Your task to perform on an android device: Search for Mexican restaurants on Maps Image 0: 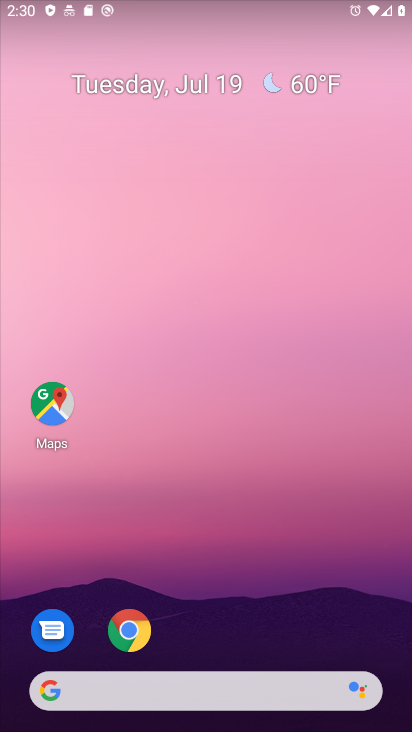
Step 0: drag from (275, 527) to (203, 96)
Your task to perform on an android device: Search for Mexican restaurants on Maps Image 1: 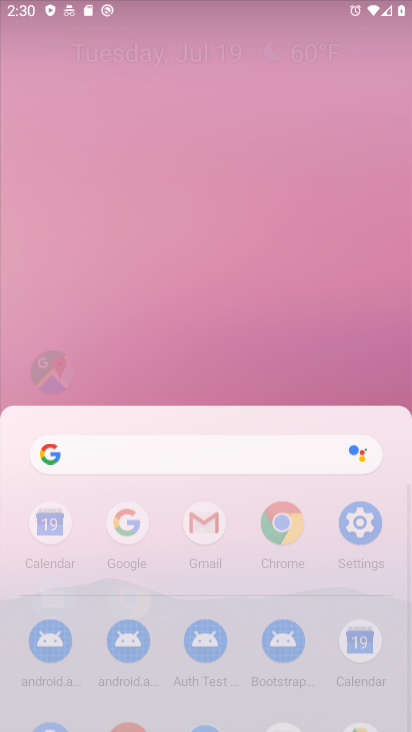
Step 1: drag from (239, 536) to (155, 100)
Your task to perform on an android device: Search for Mexican restaurants on Maps Image 2: 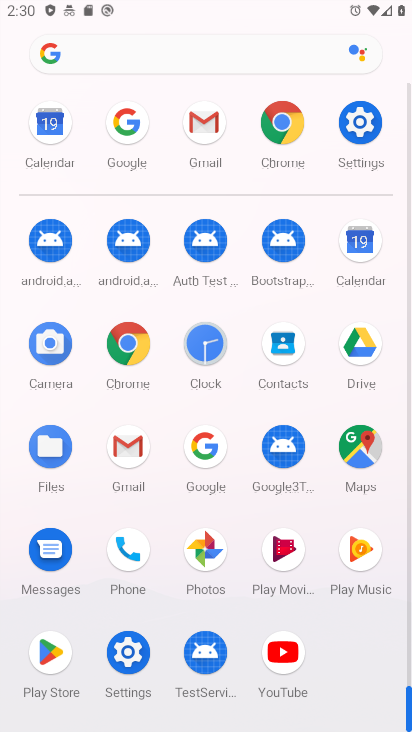
Step 2: drag from (211, 473) to (142, 139)
Your task to perform on an android device: Search for Mexican restaurants on Maps Image 3: 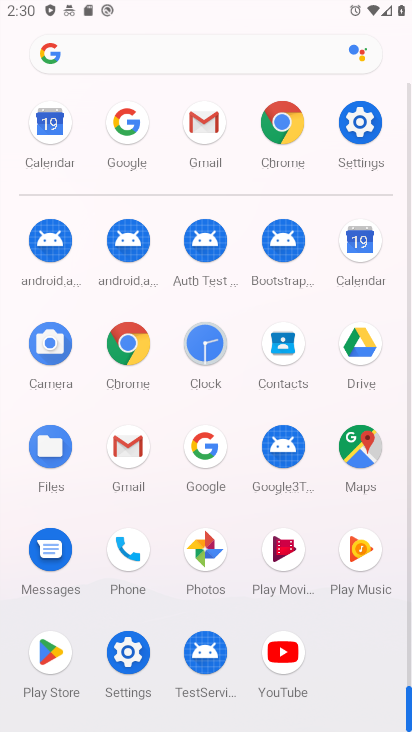
Step 3: click (361, 457)
Your task to perform on an android device: Search for Mexican restaurants on Maps Image 4: 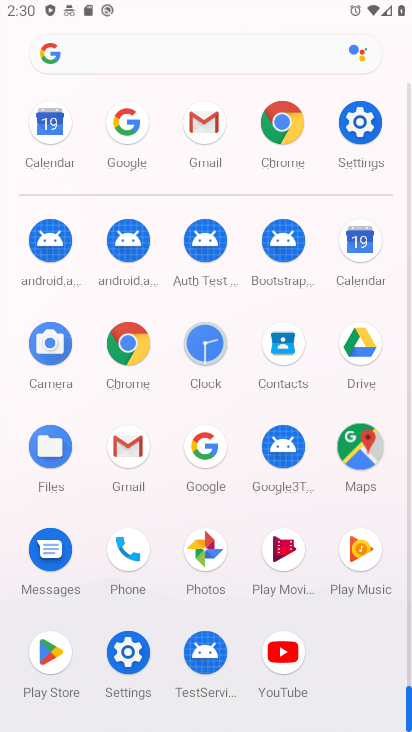
Step 4: click (362, 457)
Your task to perform on an android device: Search for Mexican restaurants on Maps Image 5: 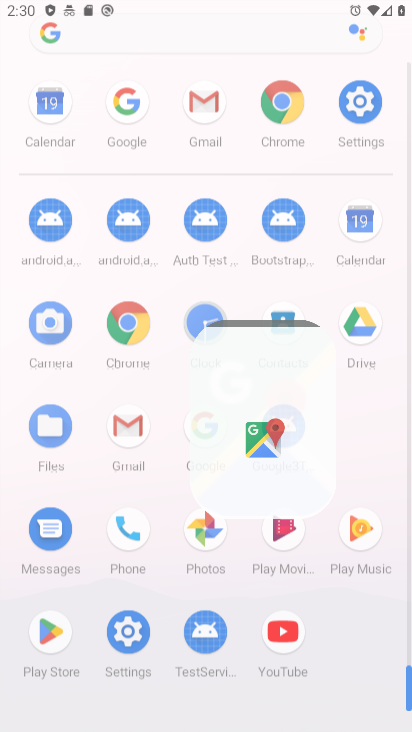
Step 5: click (362, 457)
Your task to perform on an android device: Search for Mexican restaurants on Maps Image 6: 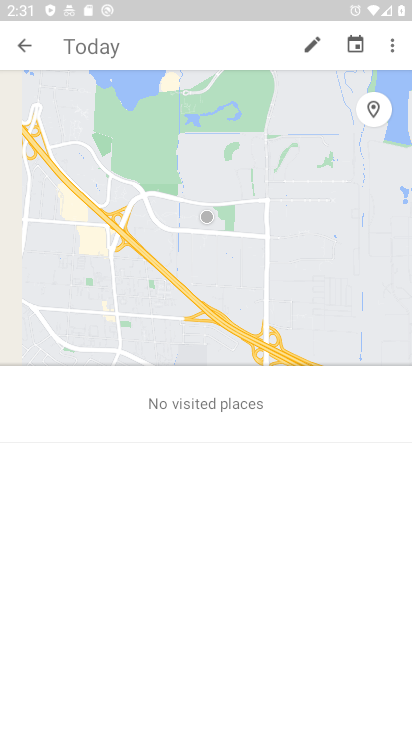
Step 6: click (114, 47)
Your task to perform on an android device: Search for Mexican restaurants on Maps Image 7: 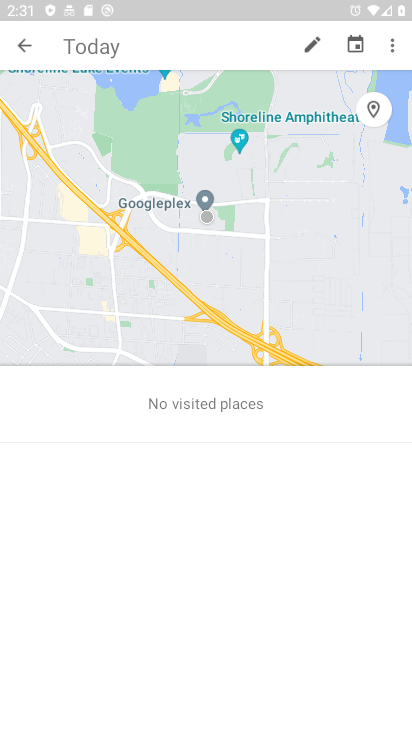
Step 7: click (120, 48)
Your task to perform on an android device: Search for Mexican restaurants on Maps Image 8: 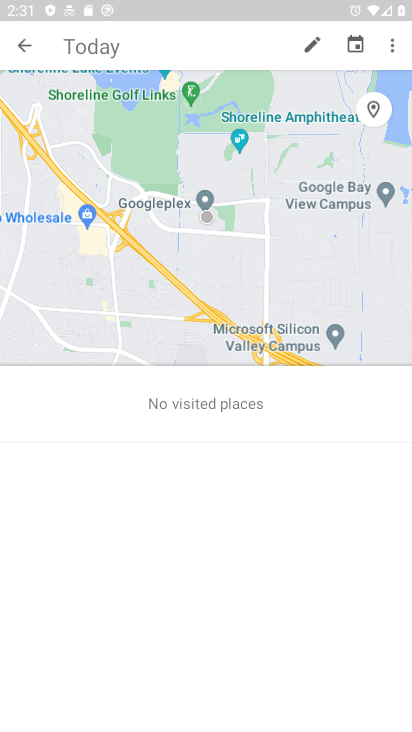
Step 8: click (58, 40)
Your task to perform on an android device: Search for Mexican restaurants on Maps Image 9: 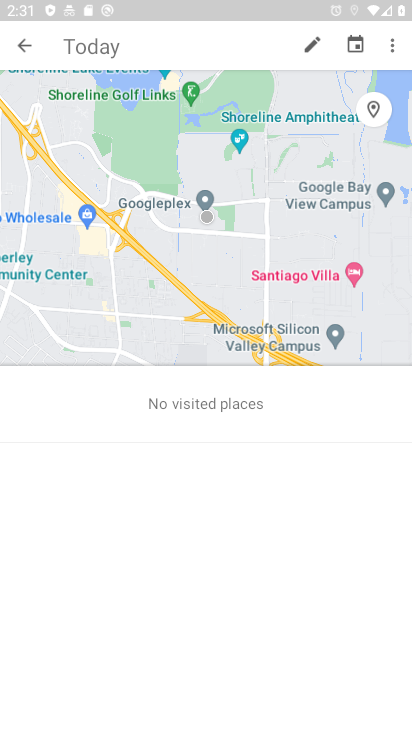
Step 9: click (77, 44)
Your task to perform on an android device: Search for Mexican restaurants on Maps Image 10: 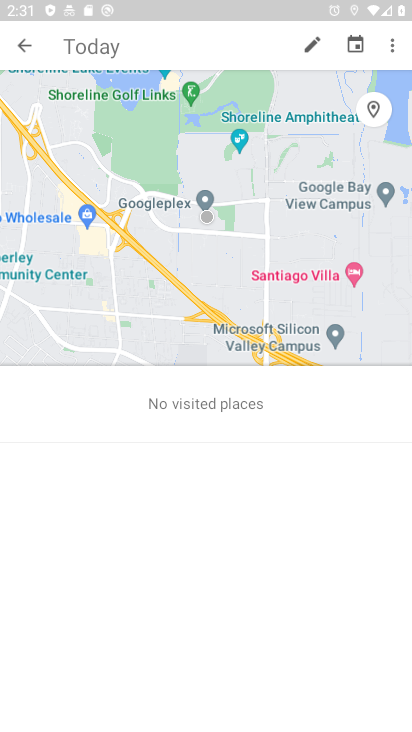
Step 10: click (80, 43)
Your task to perform on an android device: Search for Mexican restaurants on Maps Image 11: 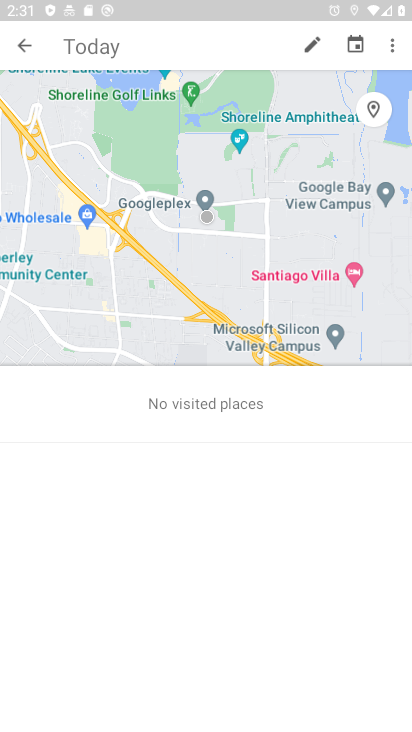
Step 11: click (81, 43)
Your task to perform on an android device: Search for Mexican restaurants on Maps Image 12: 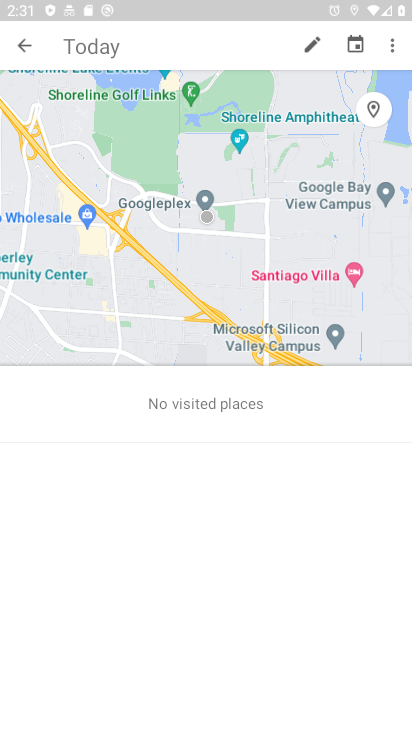
Step 12: click (81, 43)
Your task to perform on an android device: Search for Mexican restaurants on Maps Image 13: 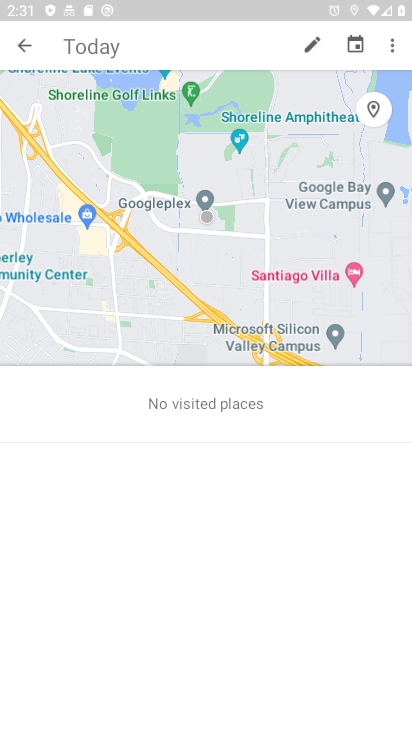
Step 13: click (82, 43)
Your task to perform on an android device: Search for Mexican restaurants on Maps Image 14: 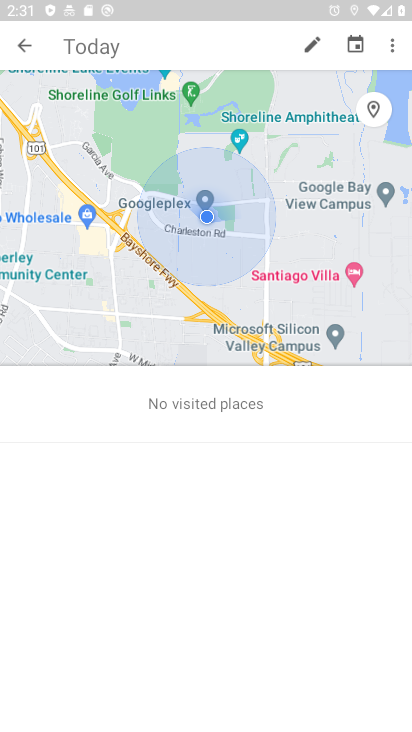
Step 14: click (85, 44)
Your task to perform on an android device: Search for Mexican restaurants on Maps Image 15: 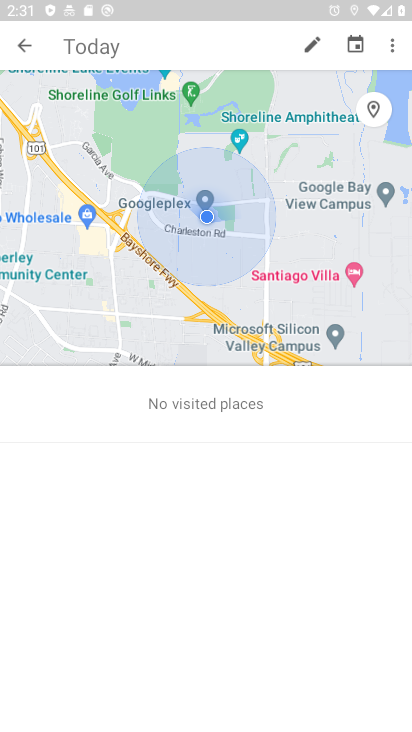
Step 15: click (86, 44)
Your task to perform on an android device: Search for Mexican restaurants on Maps Image 16: 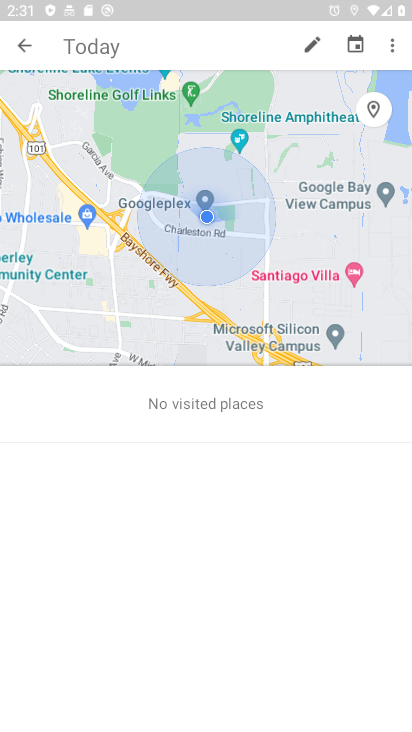
Step 16: click (89, 44)
Your task to perform on an android device: Search for Mexican restaurants on Maps Image 17: 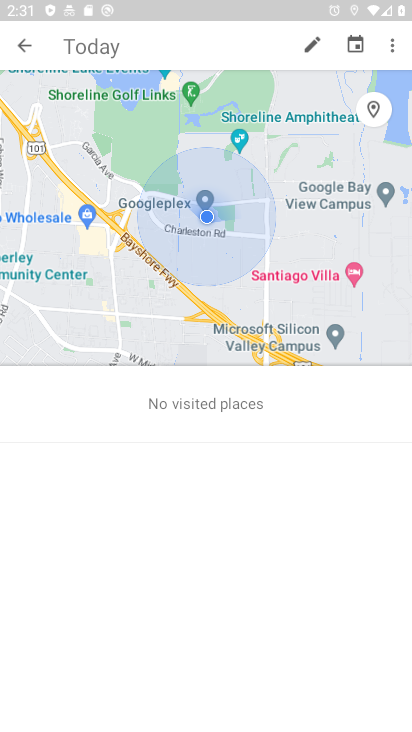
Step 17: click (89, 44)
Your task to perform on an android device: Search for Mexican restaurants on Maps Image 18: 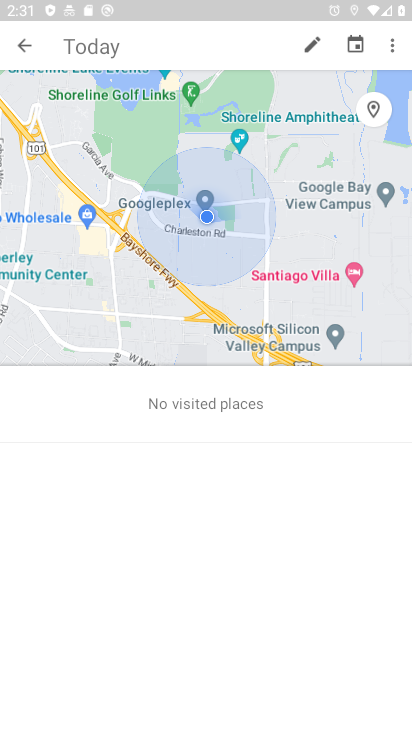
Step 18: click (93, 47)
Your task to perform on an android device: Search for Mexican restaurants on Maps Image 19: 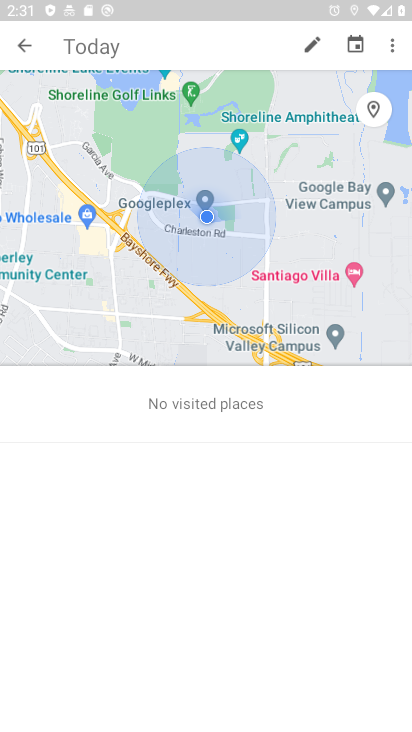
Step 19: click (91, 40)
Your task to perform on an android device: Search for Mexican restaurants on Maps Image 20: 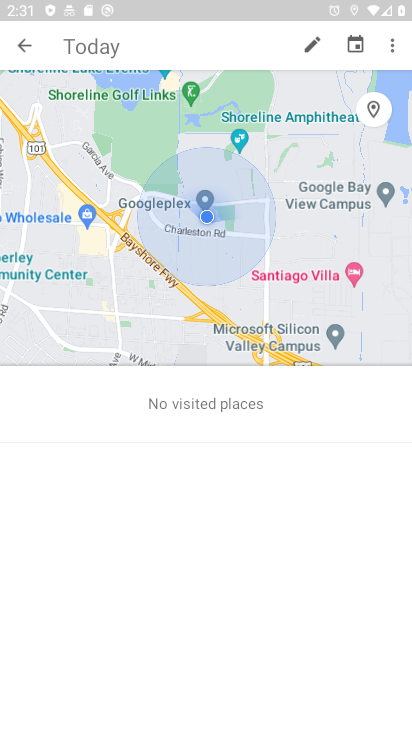
Step 20: click (93, 28)
Your task to perform on an android device: Search for Mexican restaurants on Maps Image 21: 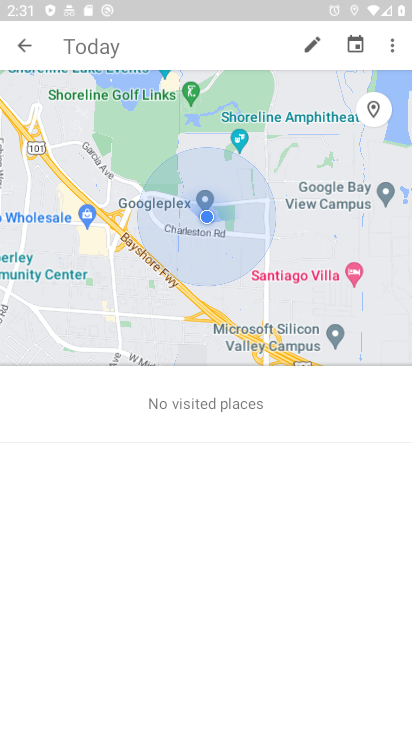
Step 21: click (83, 38)
Your task to perform on an android device: Search for Mexican restaurants on Maps Image 22: 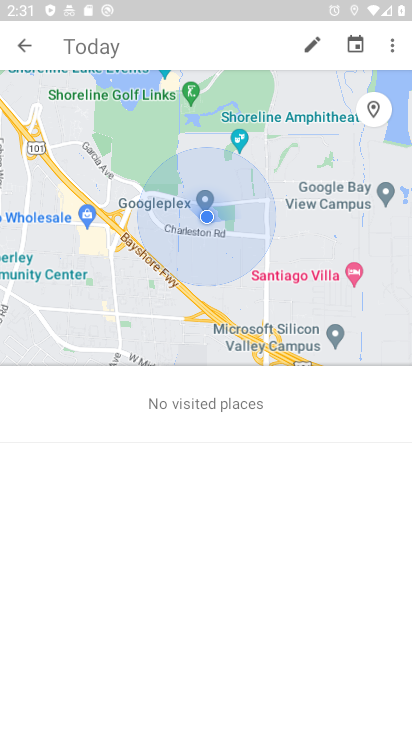
Step 22: click (83, 38)
Your task to perform on an android device: Search for Mexican restaurants on Maps Image 23: 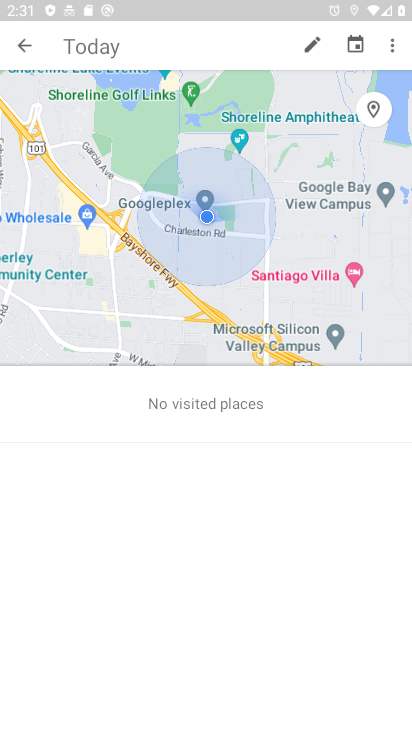
Step 23: type "m"
Your task to perform on an android device: Search for Mexican restaurants on Maps Image 24: 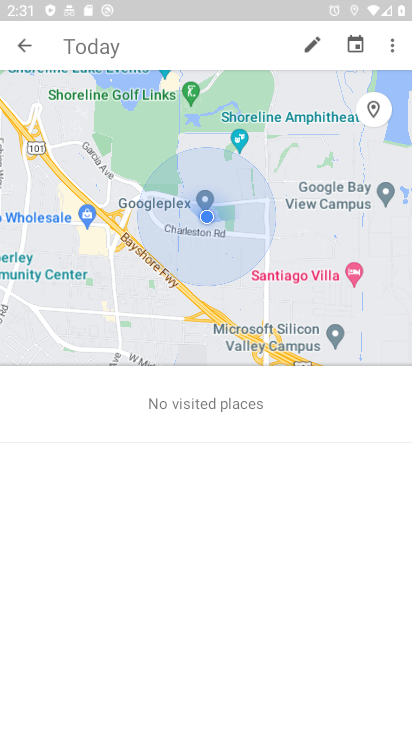
Step 24: click (312, 43)
Your task to perform on an android device: Search for Mexican restaurants on Maps Image 25: 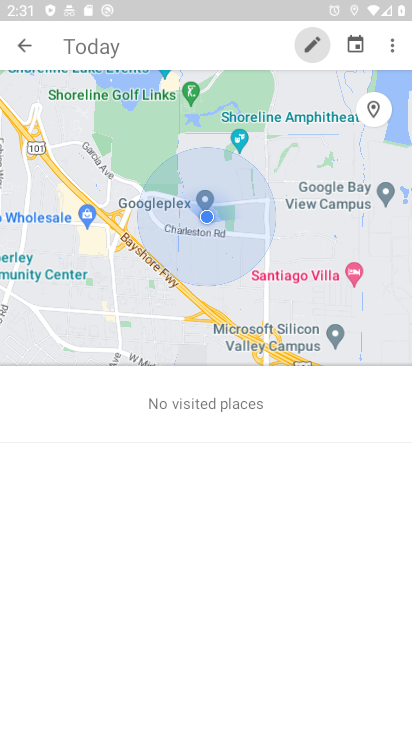
Step 25: click (81, 41)
Your task to perform on an android device: Search for Mexican restaurants on Maps Image 26: 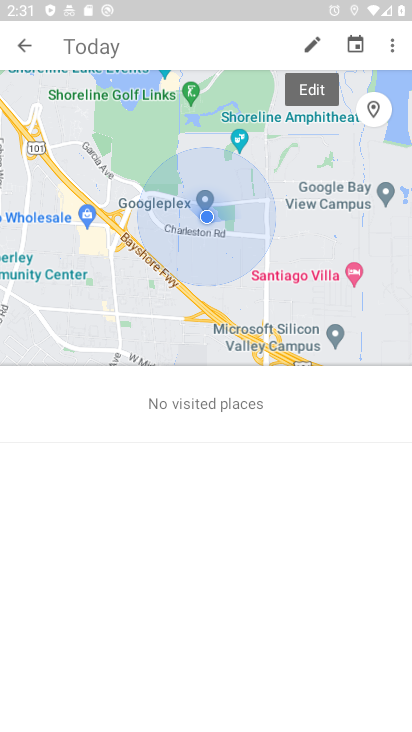
Step 26: click (81, 41)
Your task to perform on an android device: Search for Mexican restaurants on Maps Image 27: 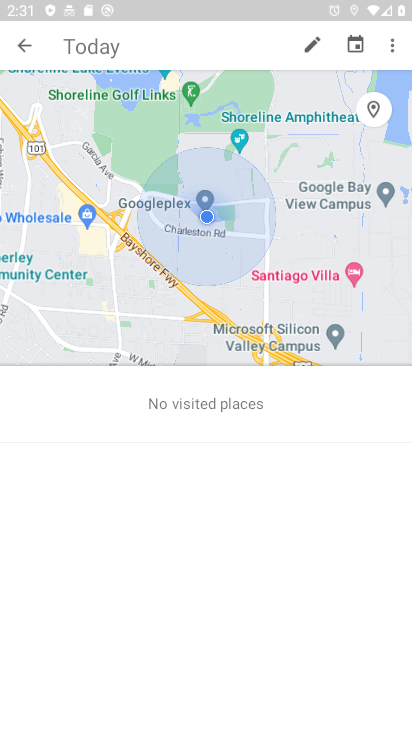
Step 27: click (81, 41)
Your task to perform on an android device: Search for Mexican restaurants on Maps Image 28: 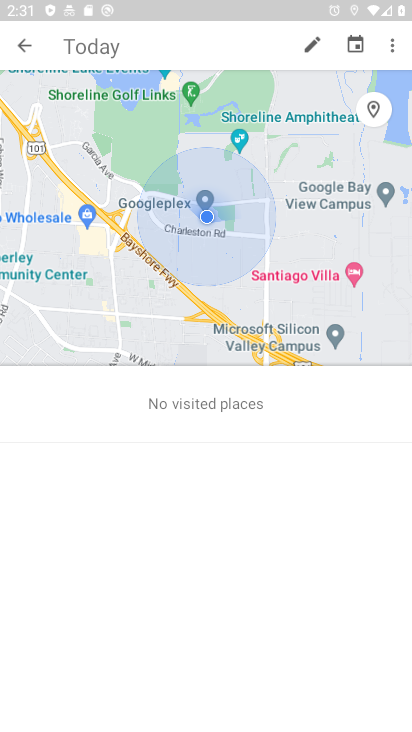
Step 28: click (81, 41)
Your task to perform on an android device: Search for Mexican restaurants on Maps Image 29: 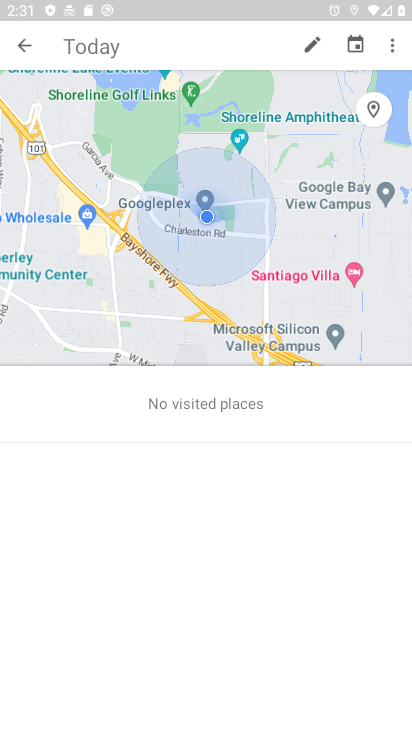
Step 29: click (81, 41)
Your task to perform on an android device: Search for Mexican restaurants on Maps Image 30: 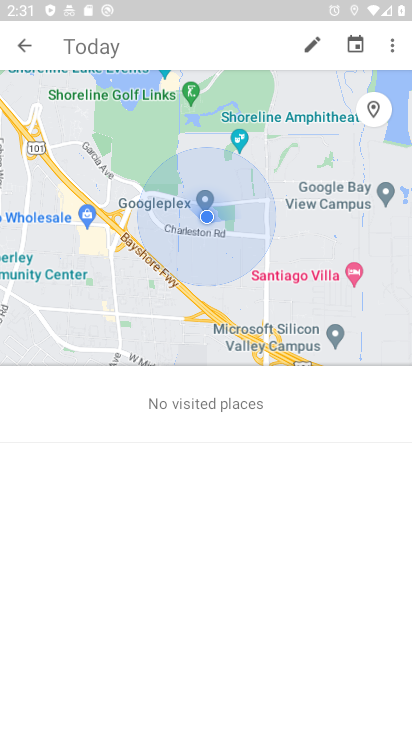
Step 30: click (81, 41)
Your task to perform on an android device: Search for Mexican restaurants on Maps Image 31: 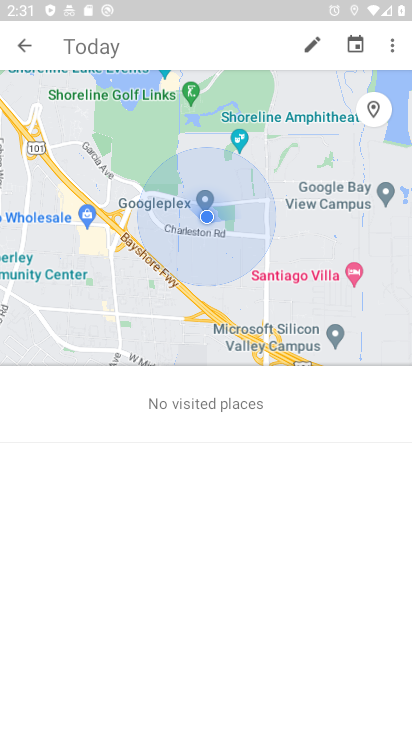
Step 31: click (20, 43)
Your task to perform on an android device: Search for Mexican restaurants on Maps Image 32: 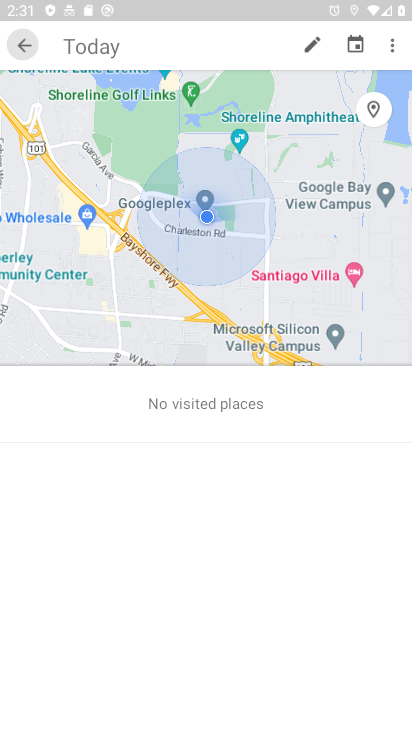
Step 32: click (20, 43)
Your task to perform on an android device: Search for Mexican restaurants on Maps Image 33: 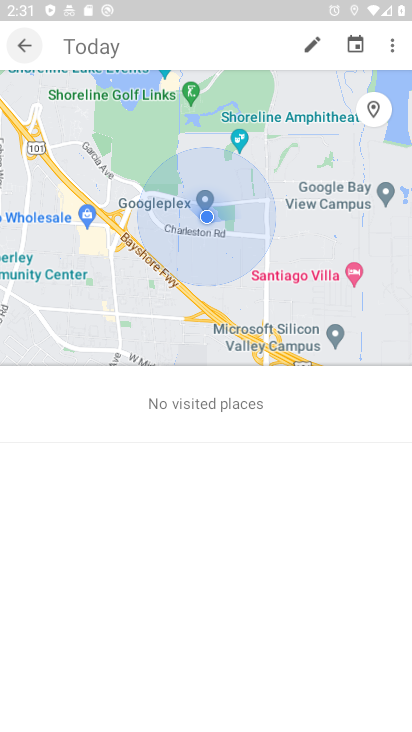
Step 33: click (20, 43)
Your task to perform on an android device: Search for Mexican restaurants on Maps Image 34: 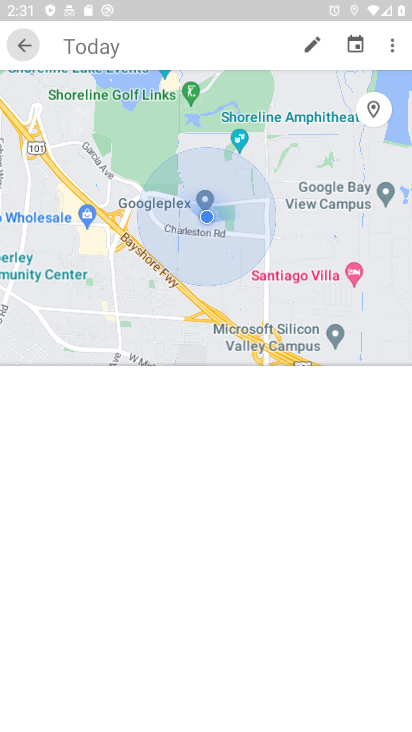
Step 34: click (20, 43)
Your task to perform on an android device: Search for Mexican restaurants on Maps Image 35: 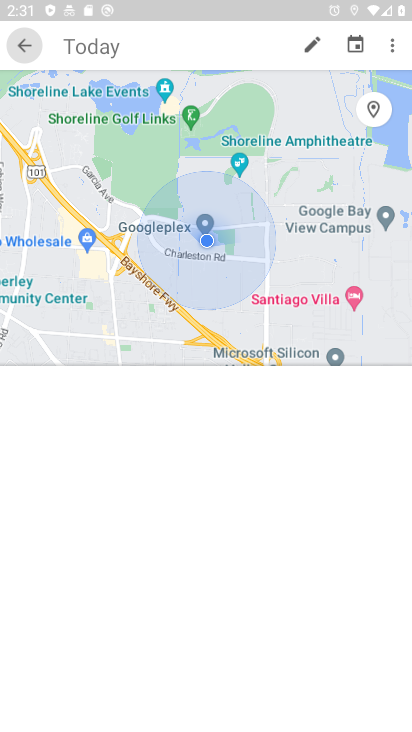
Step 35: click (20, 43)
Your task to perform on an android device: Search for Mexican restaurants on Maps Image 36: 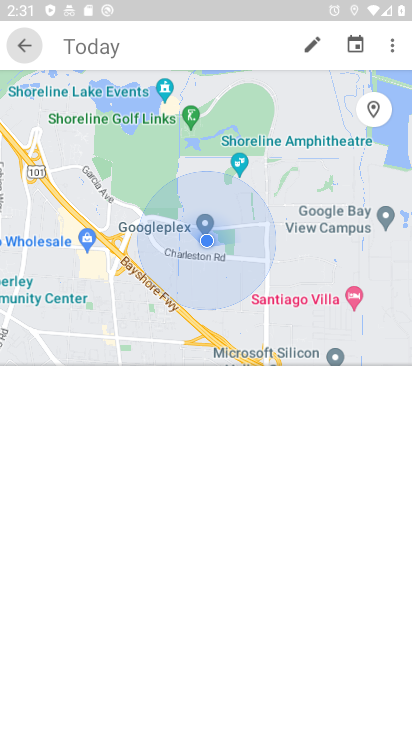
Step 36: click (20, 43)
Your task to perform on an android device: Search for Mexican restaurants on Maps Image 37: 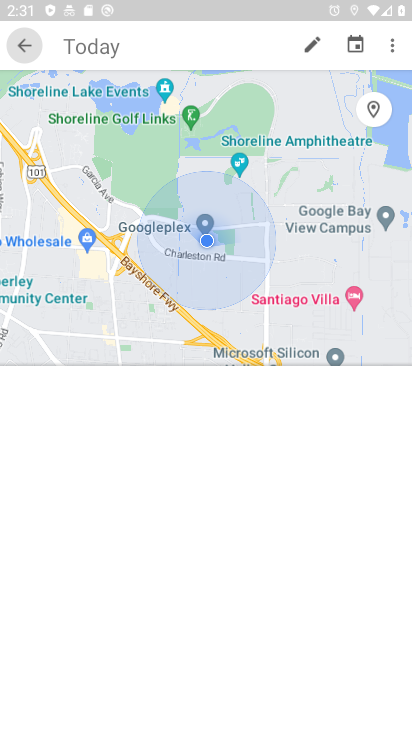
Step 37: click (19, 44)
Your task to perform on an android device: Search for Mexican restaurants on Maps Image 38: 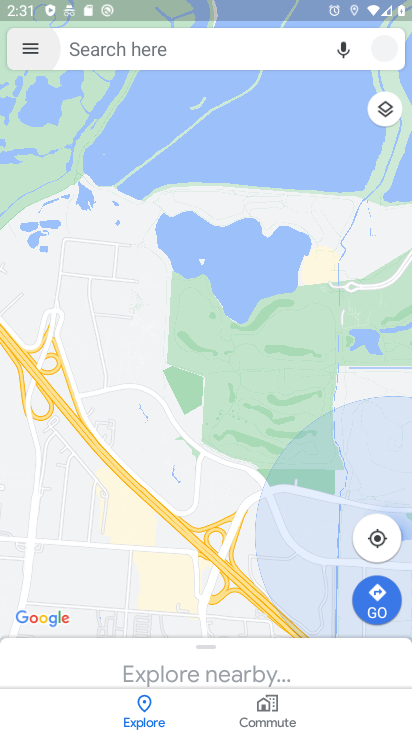
Step 38: click (74, 42)
Your task to perform on an android device: Search for Mexican restaurants on Maps Image 39: 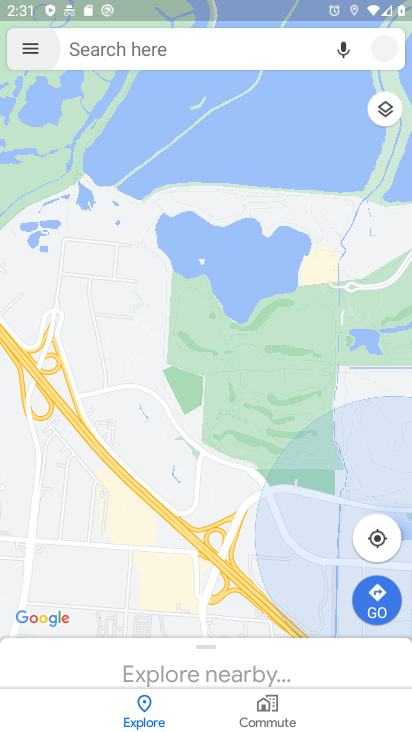
Step 39: click (74, 42)
Your task to perform on an android device: Search for Mexican restaurants on Maps Image 40: 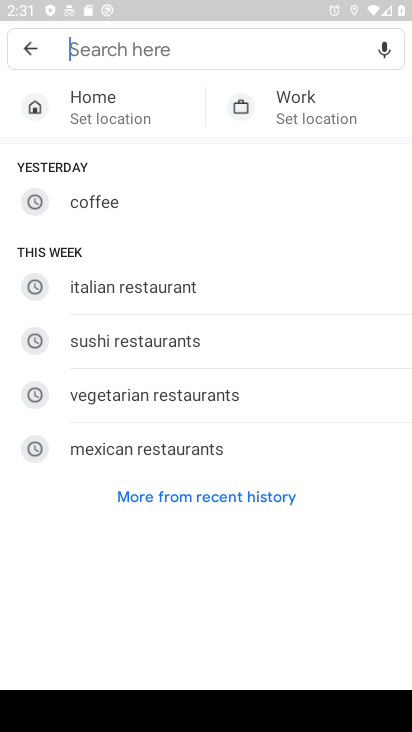
Step 40: click (118, 443)
Your task to perform on an android device: Search for Mexican restaurants on Maps Image 41: 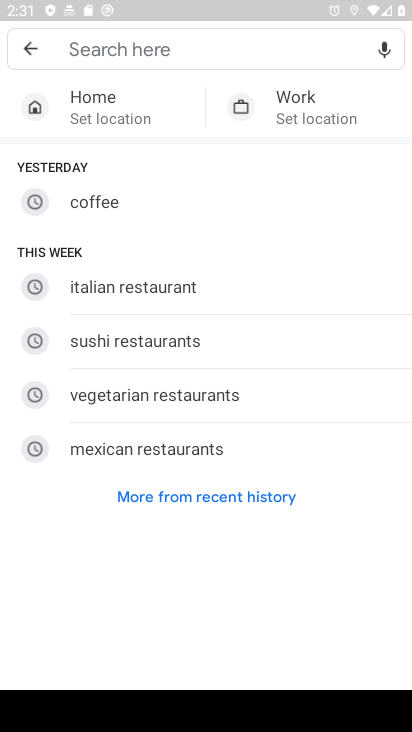
Step 41: click (118, 443)
Your task to perform on an android device: Search for Mexican restaurants on Maps Image 42: 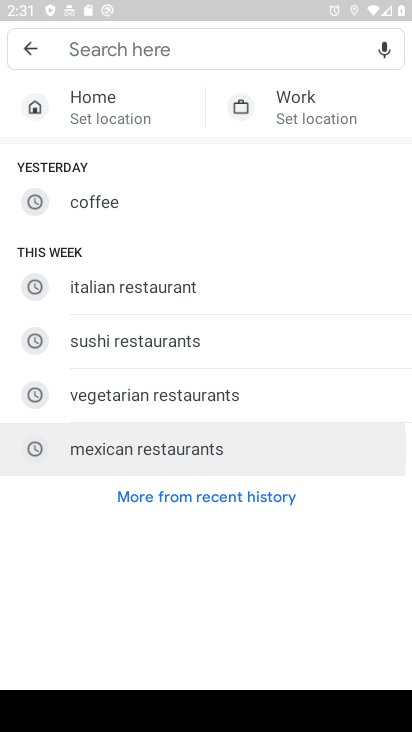
Step 42: click (118, 443)
Your task to perform on an android device: Search for Mexican restaurants on Maps Image 43: 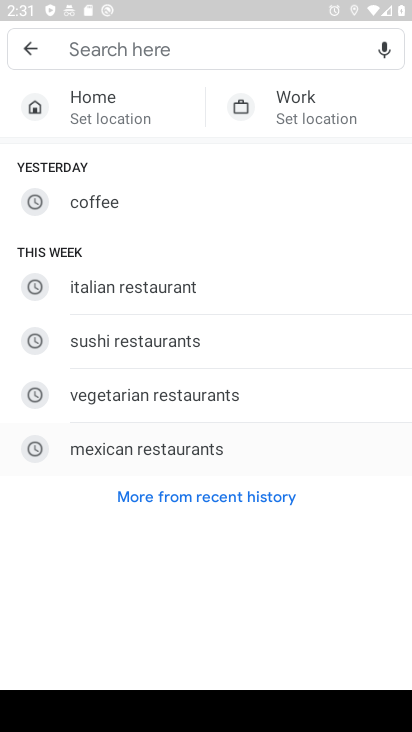
Step 43: click (118, 443)
Your task to perform on an android device: Search for Mexican restaurants on Maps Image 44: 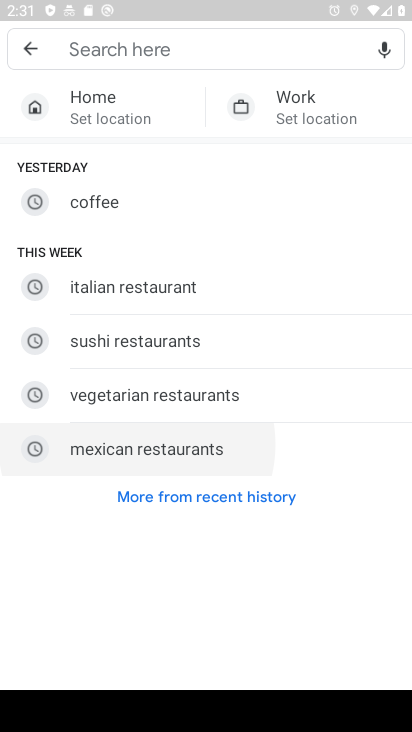
Step 44: click (118, 443)
Your task to perform on an android device: Search for Mexican restaurants on Maps Image 45: 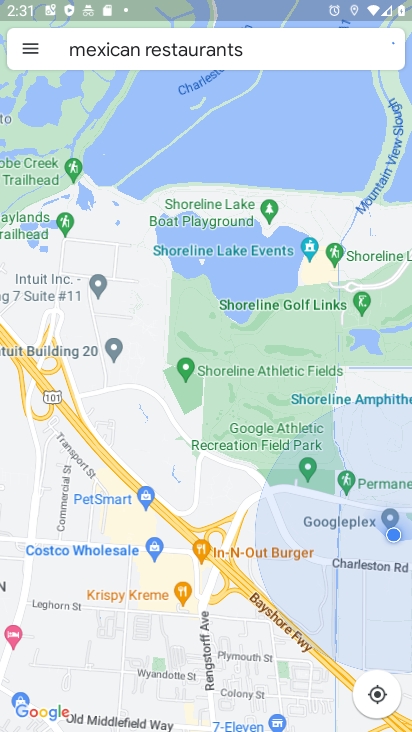
Step 45: task complete